Your task to perform on an android device: Open Android settings Image 0: 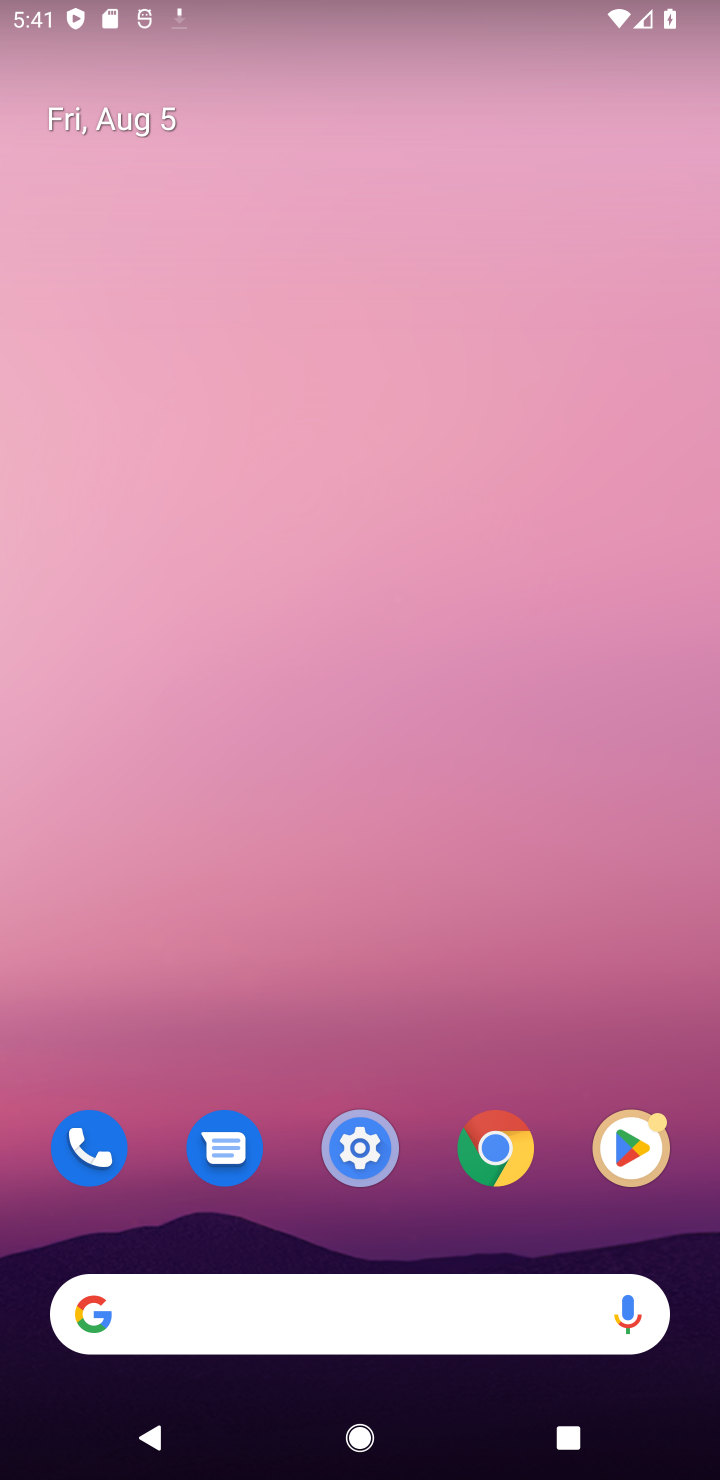
Step 0: click (356, 1150)
Your task to perform on an android device: Open Android settings Image 1: 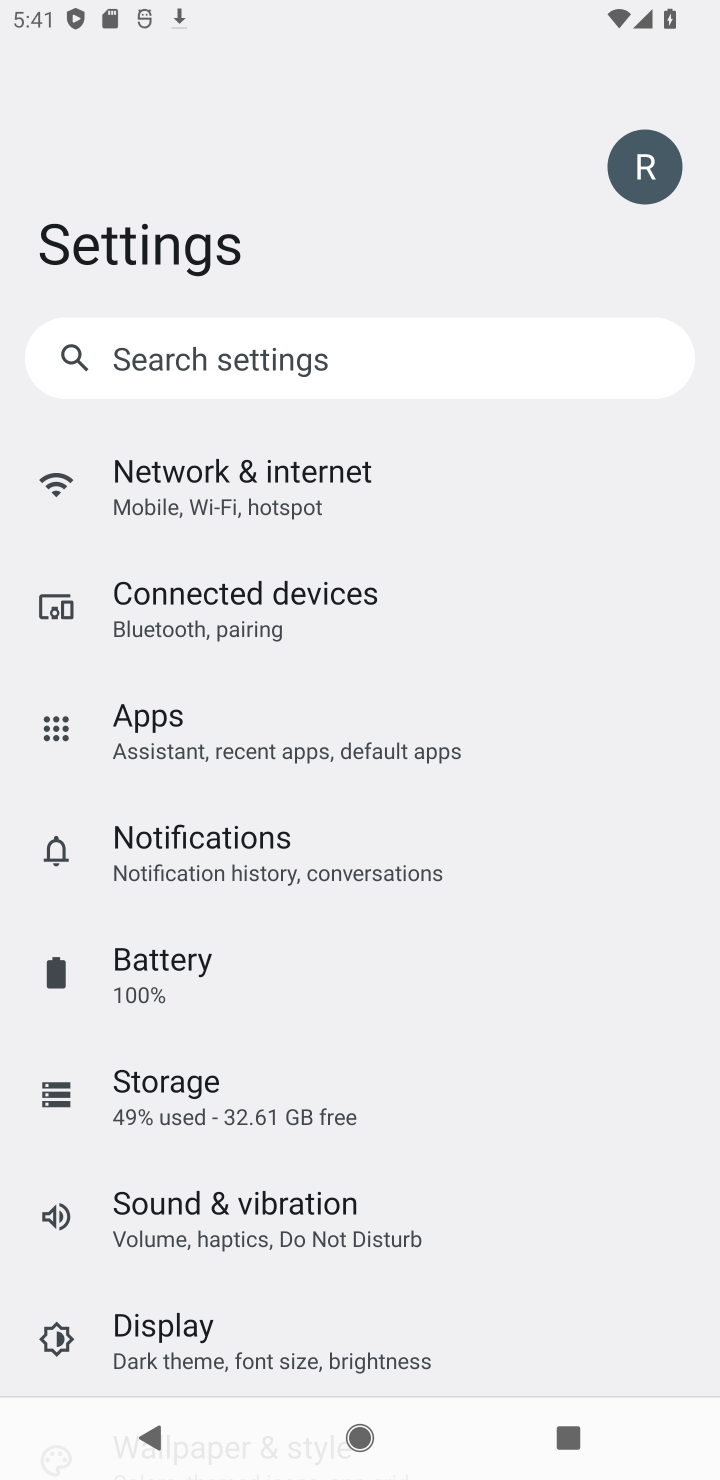
Step 1: drag from (495, 1235) to (485, 335)
Your task to perform on an android device: Open Android settings Image 2: 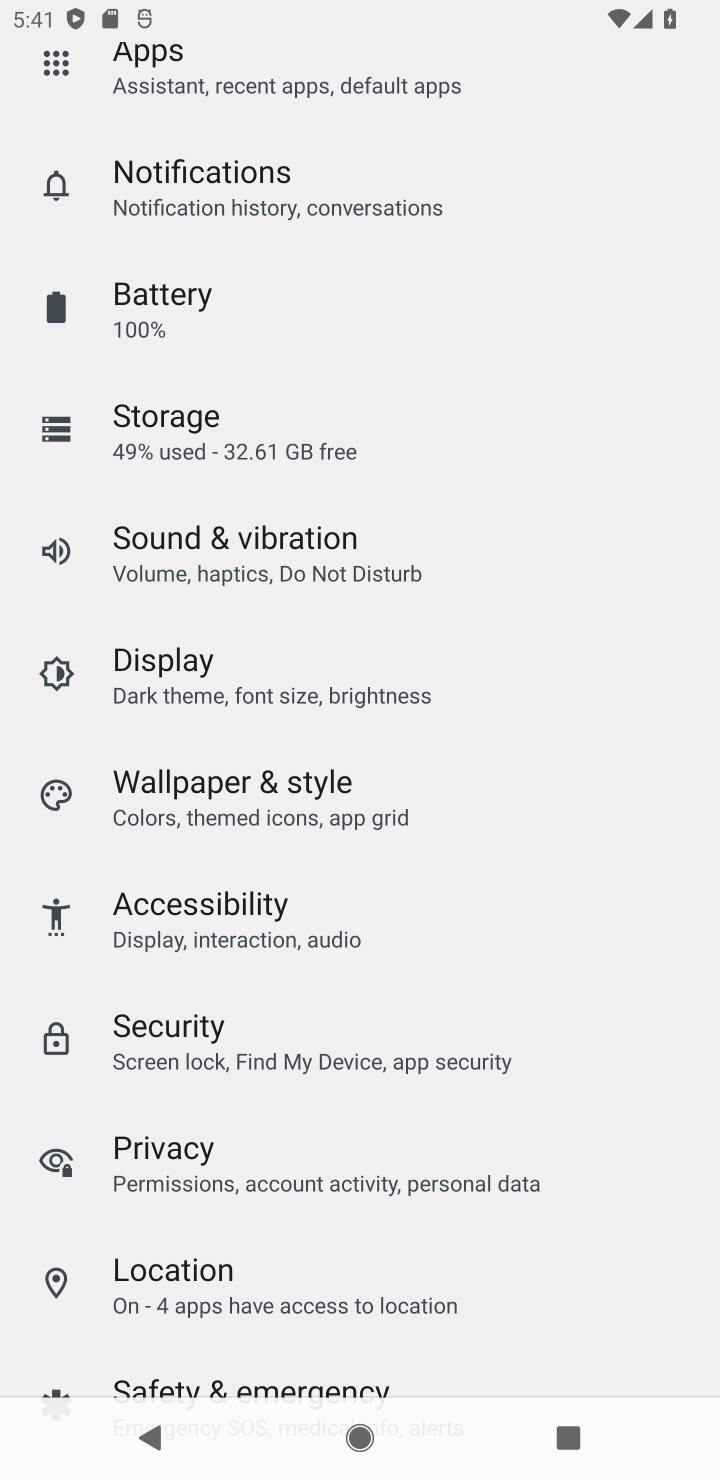
Step 2: drag from (527, 1319) to (464, 675)
Your task to perform on an android device: Open Android settings Image 3: 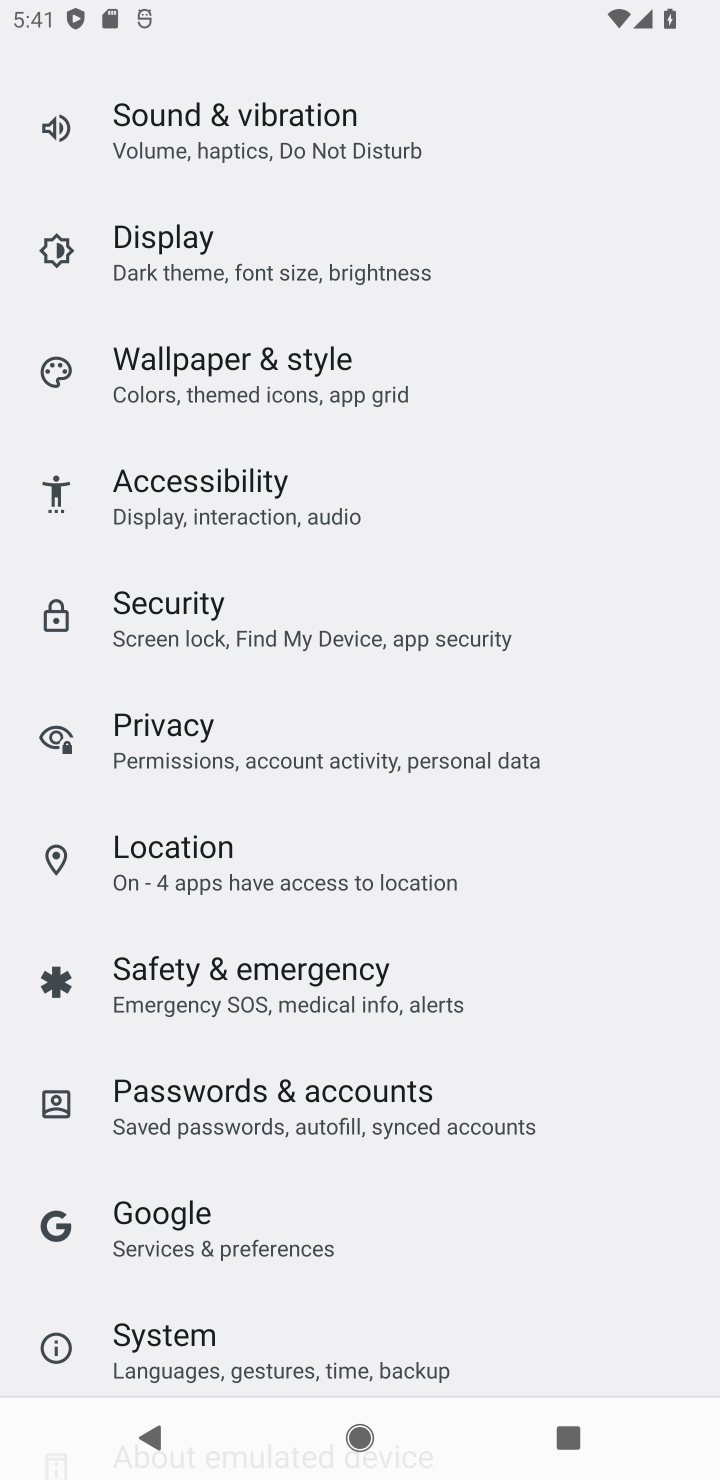
Step 3: drag from (472, 1215) to (446, 179)
Your task to perform on an android device: Open Android settings Image 4: 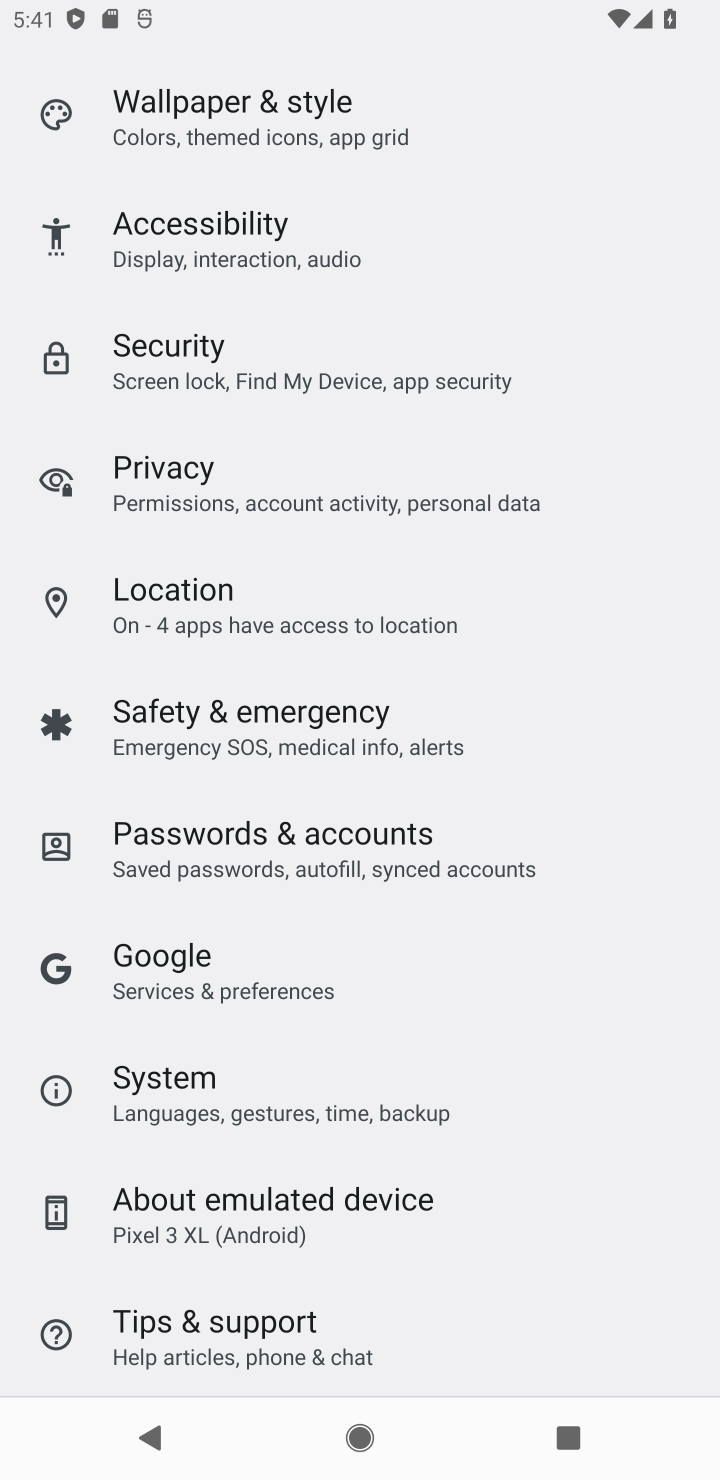
Step 4: click (272, 1197)
Your task to perform on an android device: Open Android settings Image 5: 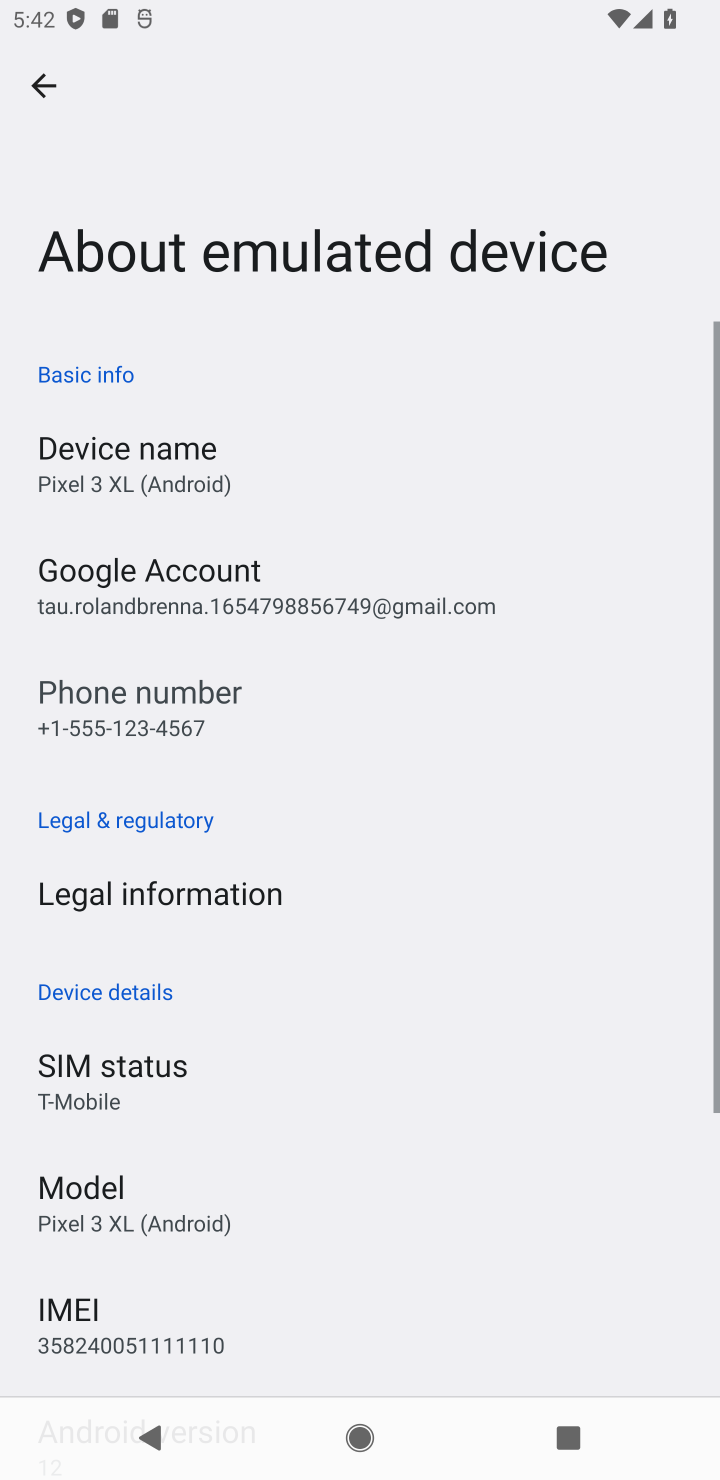
Step 5: task complete